Your task to perform on an android device: Search for sushi restaurants on Maps Image 0: 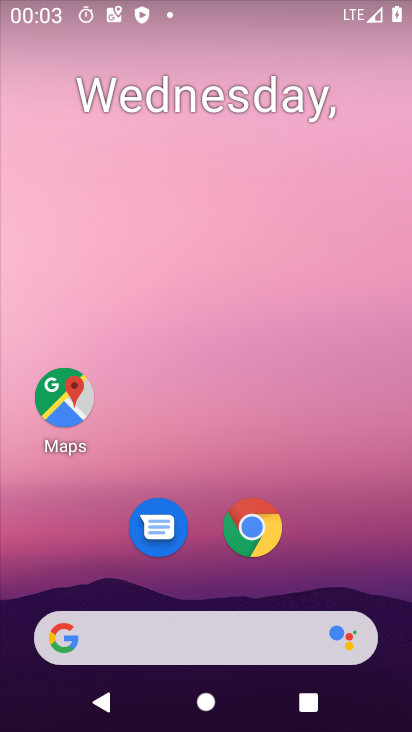
Step 0: drag from (204, 611) to (285, 29)
Your task to perform on an android device: Search for sushi restaurants on Maps Image 1: 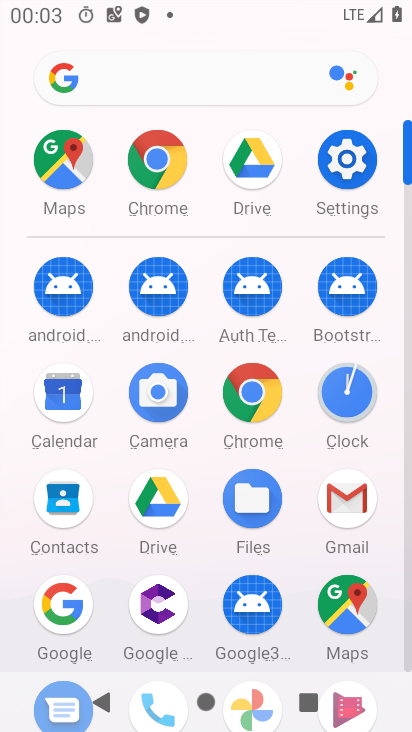
Step 1: drag from (202, 551) to (213, 266)
Your task to perform on an android device: Search for sushi restaurants on Maps Image 2: 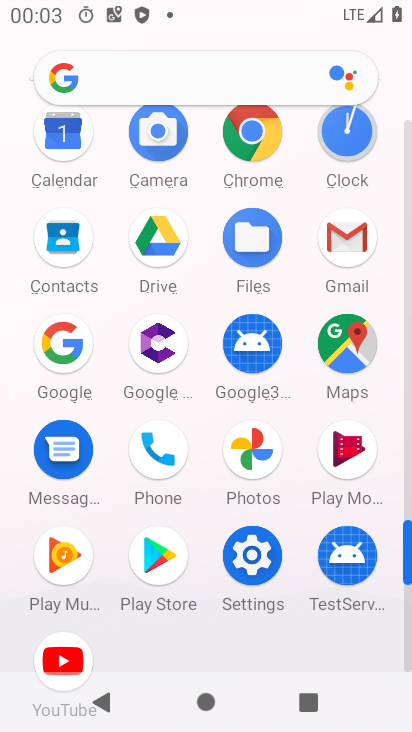
Step 2: drag from (202, 506) to (233, 220)
Your task to perform on an android device: Search for sushi restaurants on Maps Image 3: 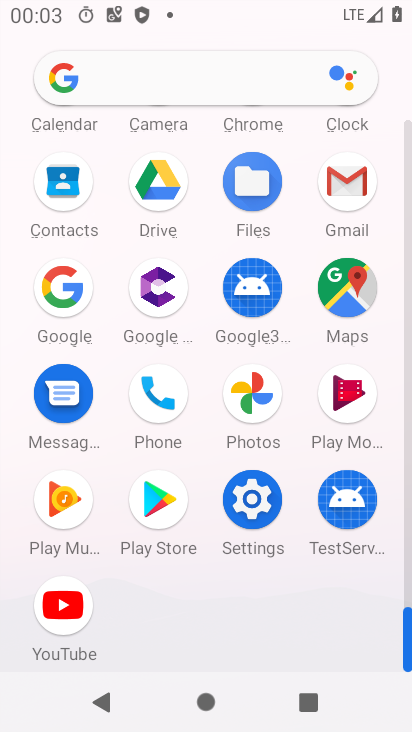
Step 3: drag from (217, 561) to (223, 233)
Your task to perform on an android device: Search for sushi restaurants on Maps Image 4: 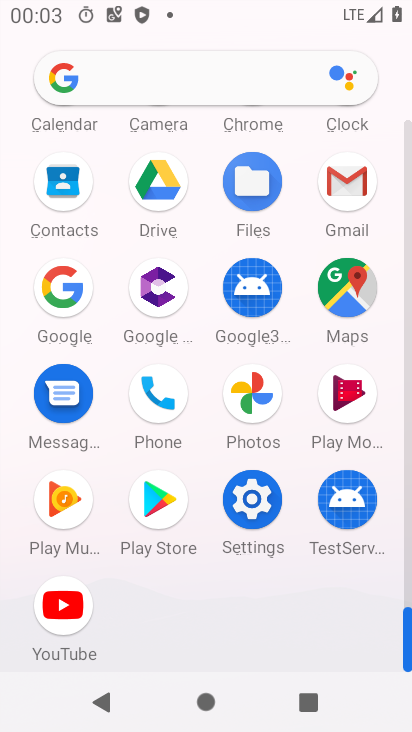
Step 4: drag from (207, 204) to (214, 714)
Your task to perform on an android device: Search for sushi restaurants on Maps Image 5: 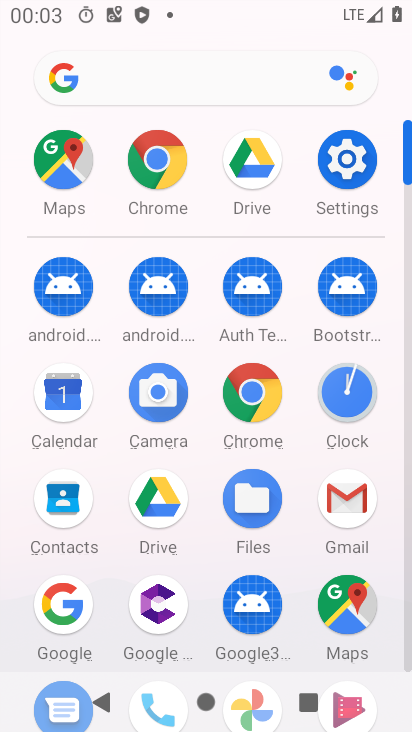
Step 5: drag from (195, 589) to (200, 186)
Your task to perform on an android device: Search for sushi restaurants on Maps Image 6: 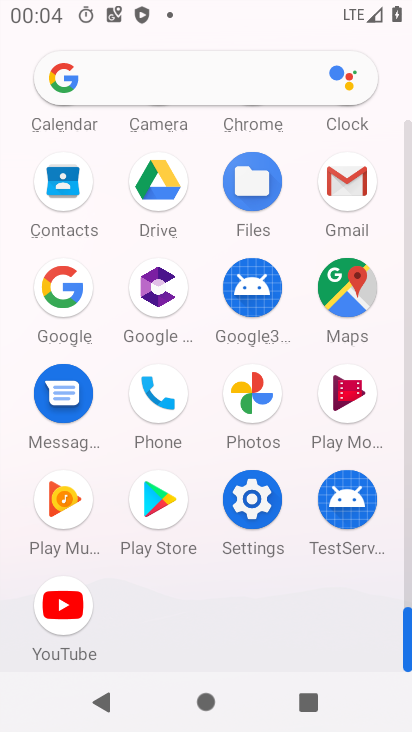
Step 6: drag from (201, 119) to (233, 704)
Your task to perform on an android device: Search for sushi restaurants on Maps Image 7: 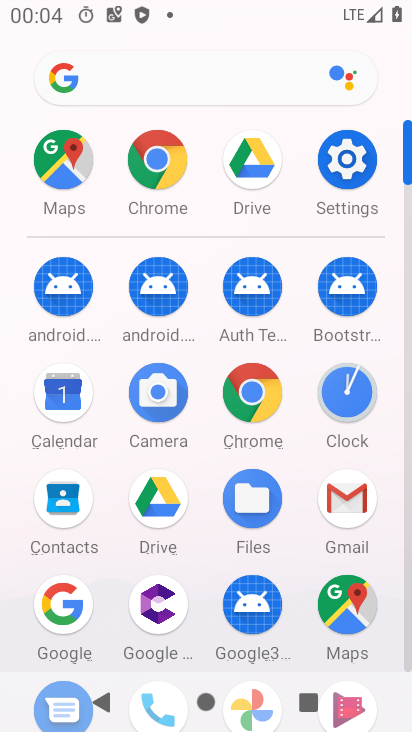
Step 7: click (349, 605)
Your task to perform on an android device: Search for sushi restaurants on Maps Image 8: 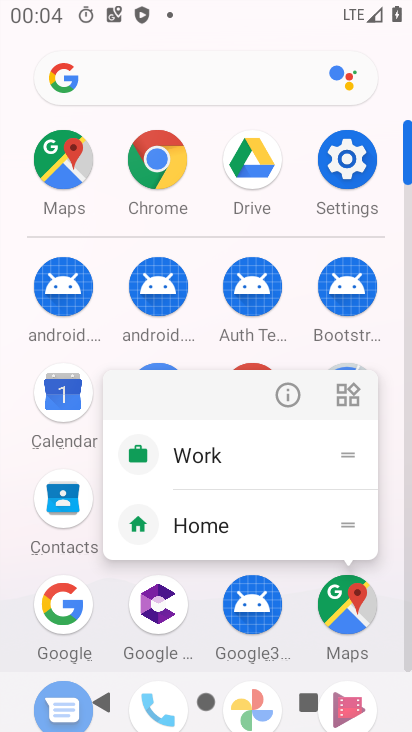
Step 8: click (295, 390)
Your task to perform on an android device: Search for sushi restaurants on Maps Image 9: 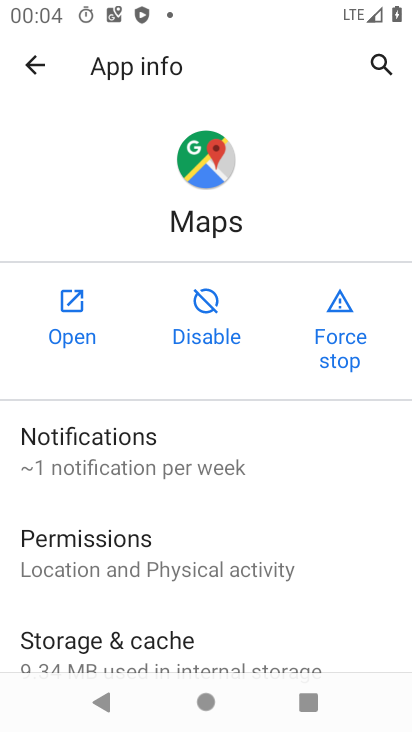
Step 9: click (59, 333)
Your task to perform on an android device: Search for sushi restaurants on Maps Image 10: 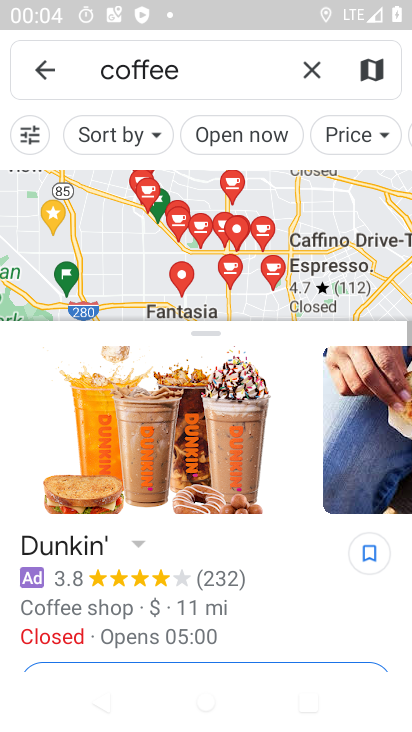
Step 10: click (305, 73)
Your task to perform on an android device: Search for sushi restaurants on Maps Image 11: 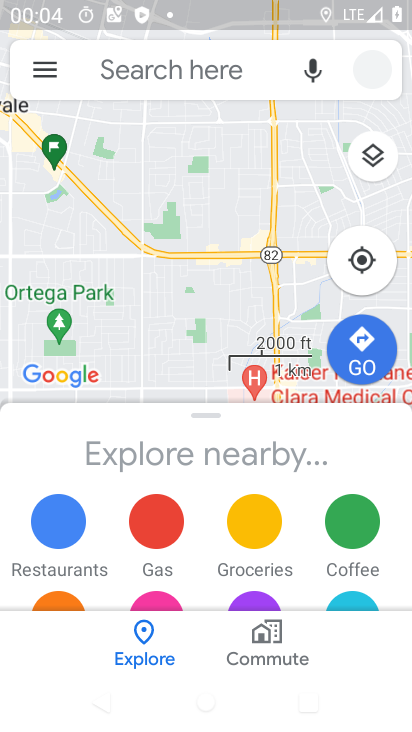
Step 11: click (120, 71)
Your task to perform on an android device: Search for sushi restaurants on Maps Image 12: 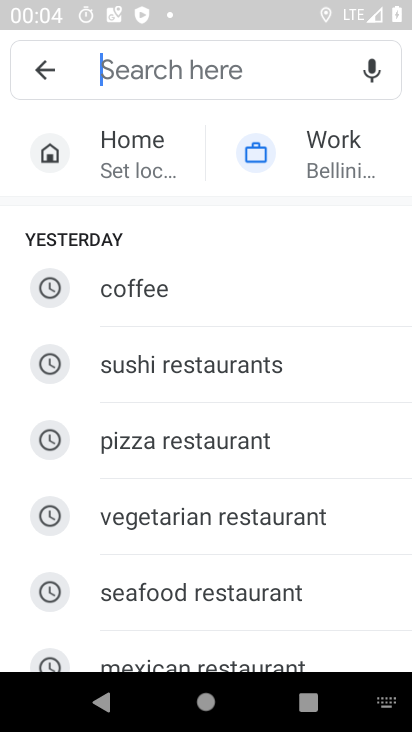
Step 12: click (122, 375)
Your task to perform on an android device: Search for sushi restaurants on Maps Image 13: 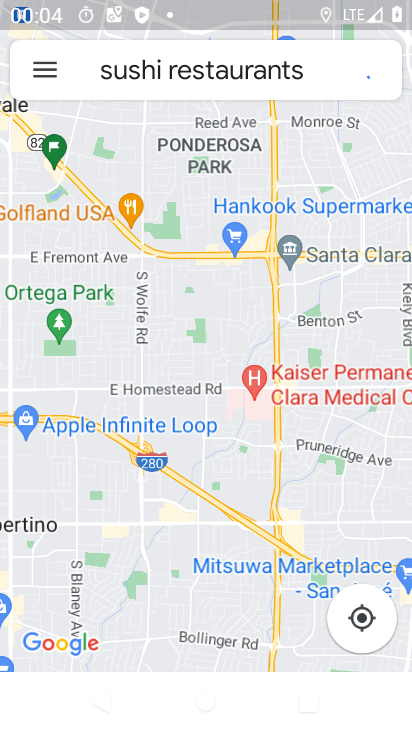
Step 13: task complete